Your task to perform on an android device: Show me popular games on the Play Store Image 0: 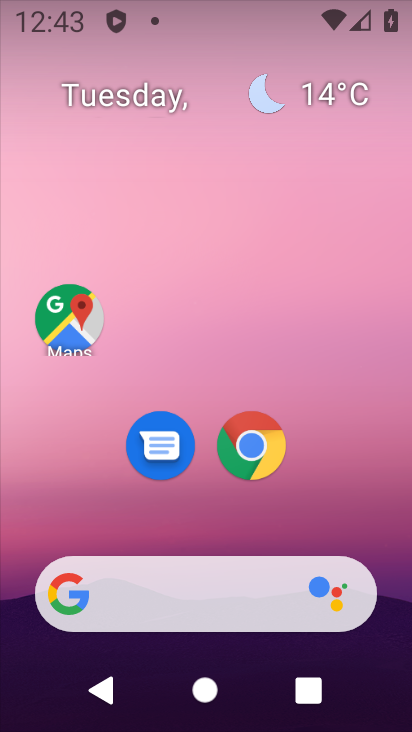
Step 0: drag from (345, 511) to (252, 53)
Your task to perform on an android device: Show me popular games on the Play Store Image 1: 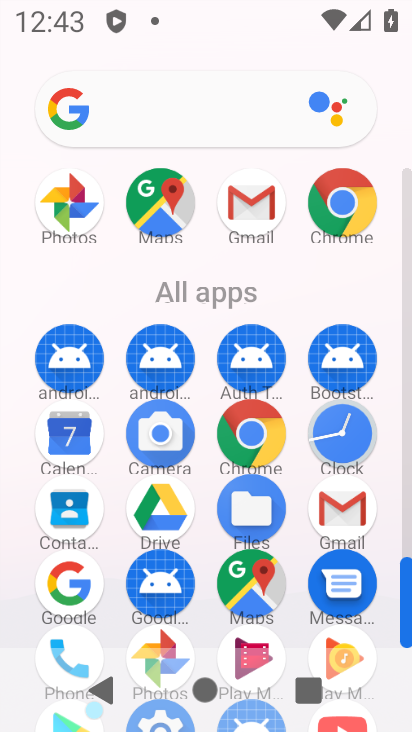
Step 1: drag from (21, 600) to (18, 294)
Your task to perform on an android device: Show me popular games on the Play Store Image 2: 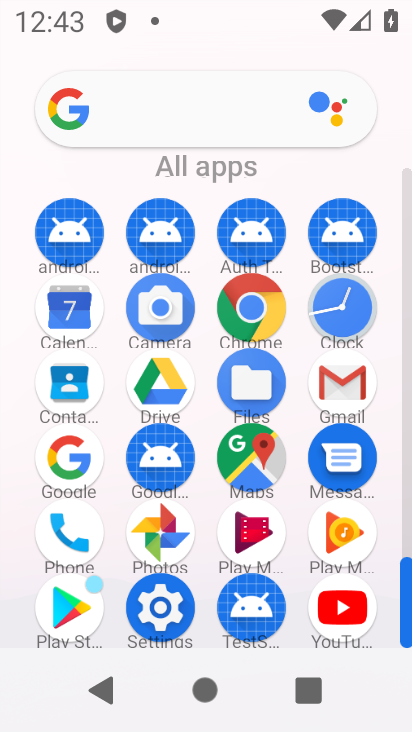
Step 2: click (67, 600)
Your task to perform on an android device: Show me popular games on the Play Store Image 3: 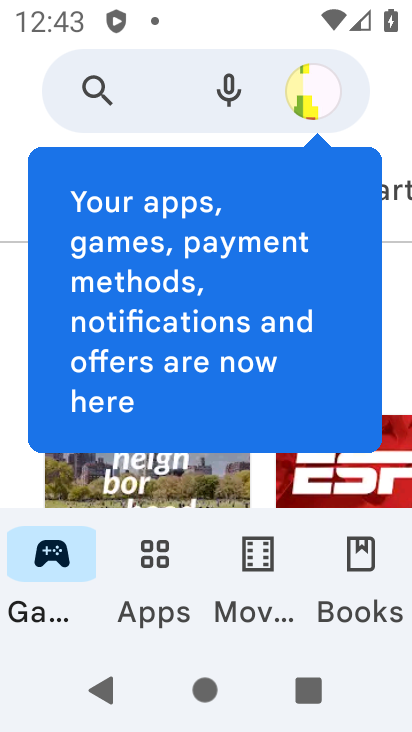
Step 3: click (8, 378)
Your task to perform on an android device: Show me popular games on the Play Store Image 4: 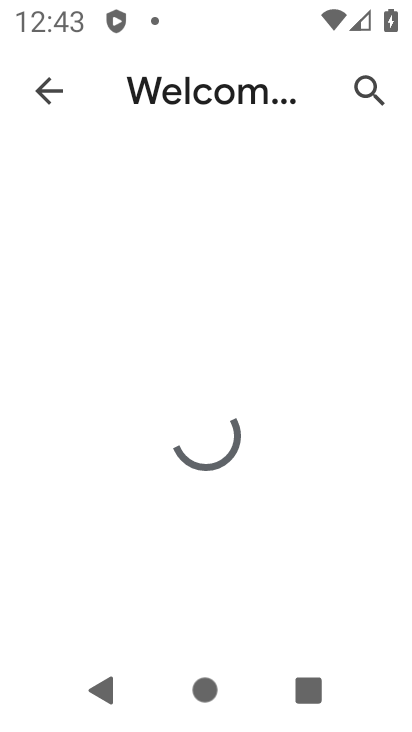
Step 4: drag from (6, 431) to (47, 198)
Your task to perform on an android device: Show me popular games on the Play Store Image 5: 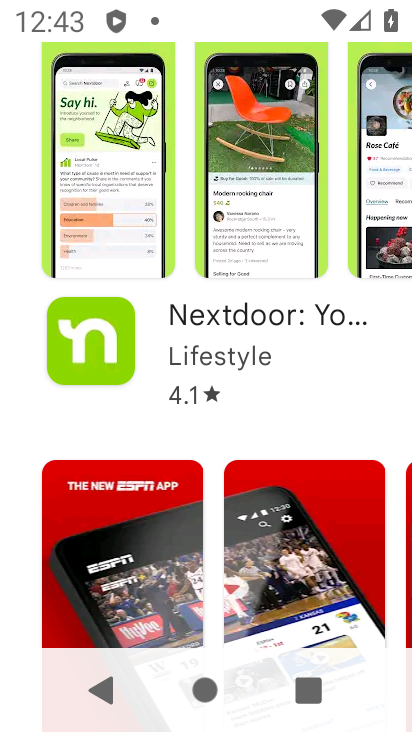
Step 5: click (51, 95)
Your task to perform on an android device: Show me popular games on the Play Store Image 6: 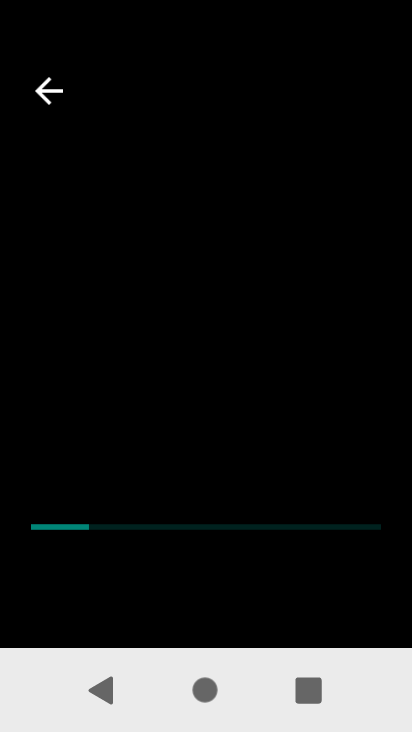
Step 6: drag from (20, 102) to (30, 427)
Your task to perform on an android device: Show me popular games on the Play Store Image 7: 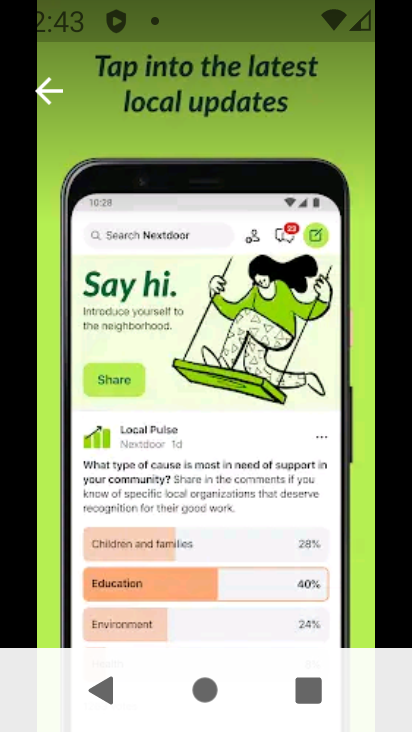
Step 7: click (40, 85)
Your task to perform on an android device: Show me popular games on the Play Store Image 8: 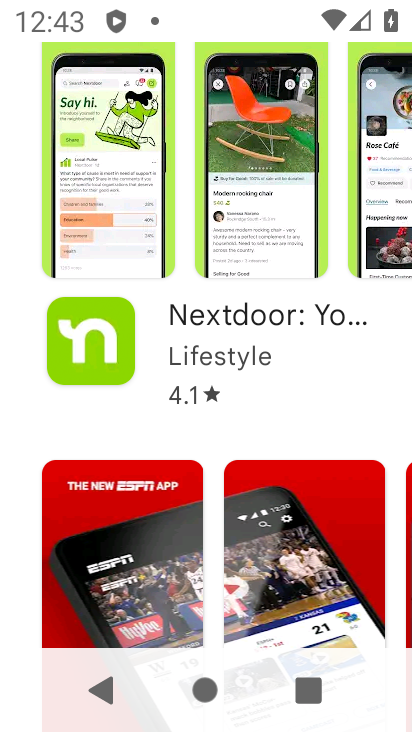
Step 8: drag from (40, 87) to (38, 510)
Your task to perform on an android device: Show me popular games on the Play Store Image 9: 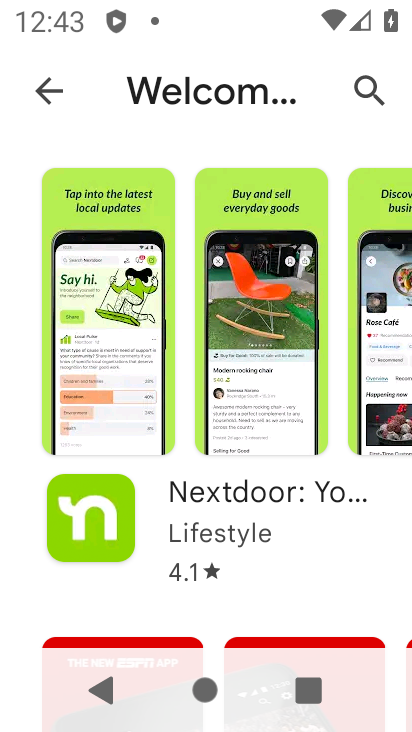
Step 9: click (47, 89)
Your task to perform on an android device: Show me popular games on the Play Store Image 10: 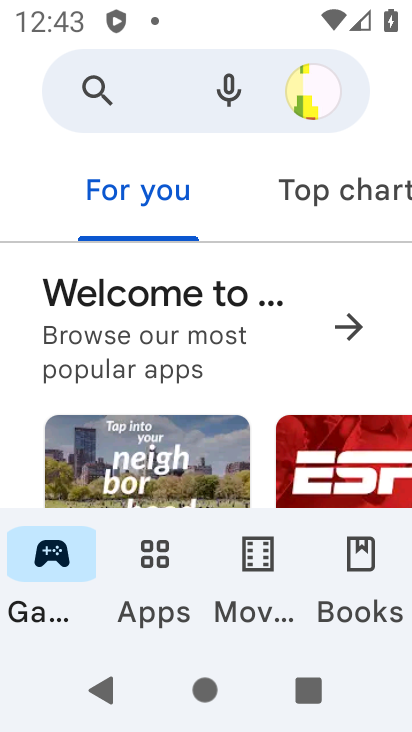
Step 10: task complete